Your task to perform on an android device: turn pop-ups on in chrome Image 0: 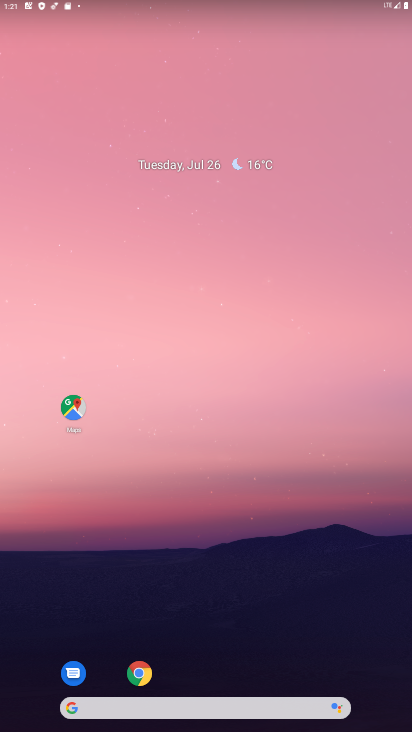
Step 0: click (141, 671)
Your task to perform on an android device: turn pop-ups on in chrome Image 1: 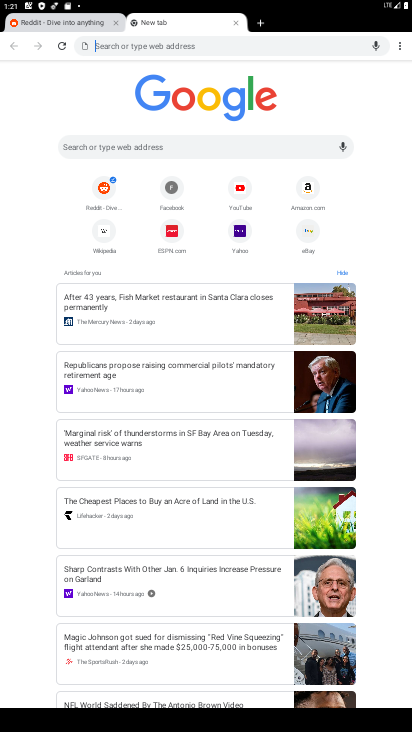
Step 1: click (400, 47)
Your task to perform on an android device: turn pop-ups on in chrome Image 2: 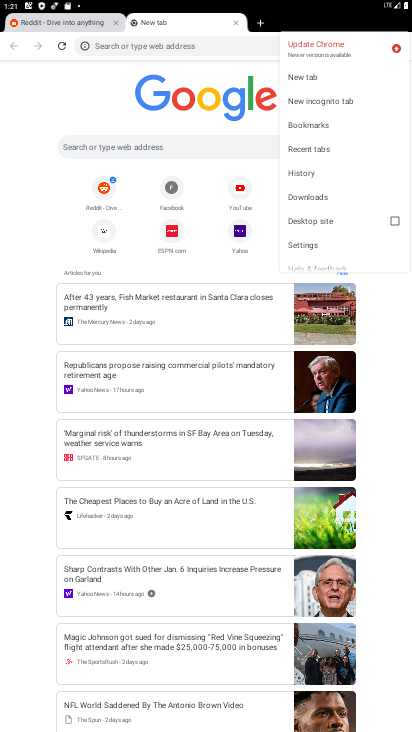
Step 2: click (303, 246)
Your task to perform on an android device: turn pop-ups on in chrome Image 3: 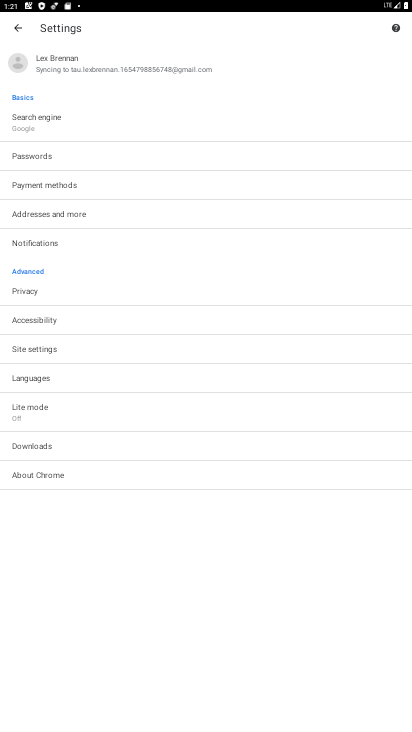
Step 3: click (31, 350)
Your task to perform on an android device: turn pop-ups on in chrome Image 4: 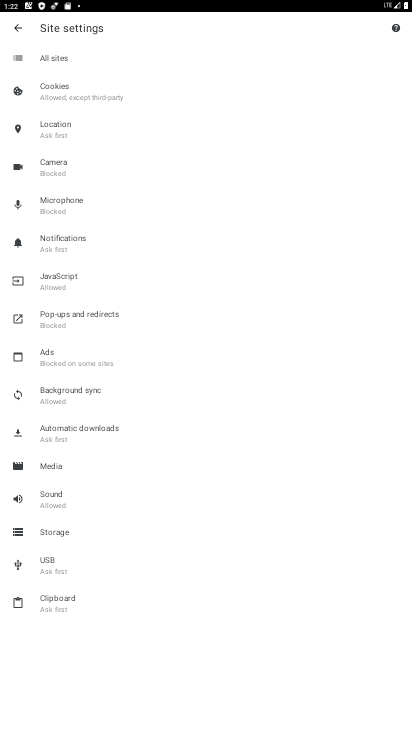
Step 4: click (55, 316)
Your task to perform on an android device: turn pop-ups on in chrome Image 5: 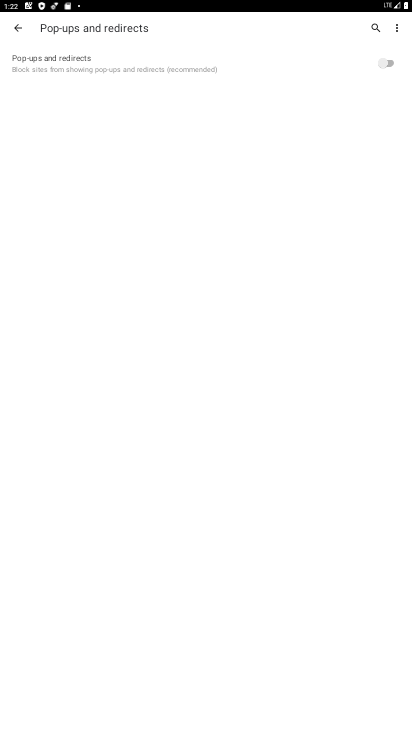
Step 5: click (390, 64)
Your task to perform on an android device: turn pop-ups on in chrome Image 6: 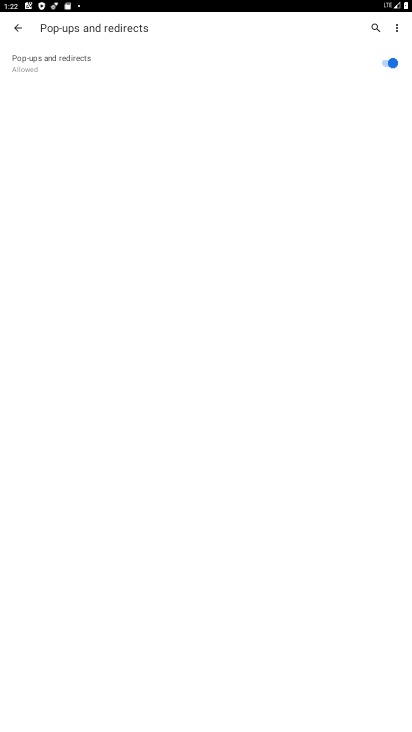
Step 6: task complete